Your task to perform on an android device: choose inbox layout in the gmail app Image 0: 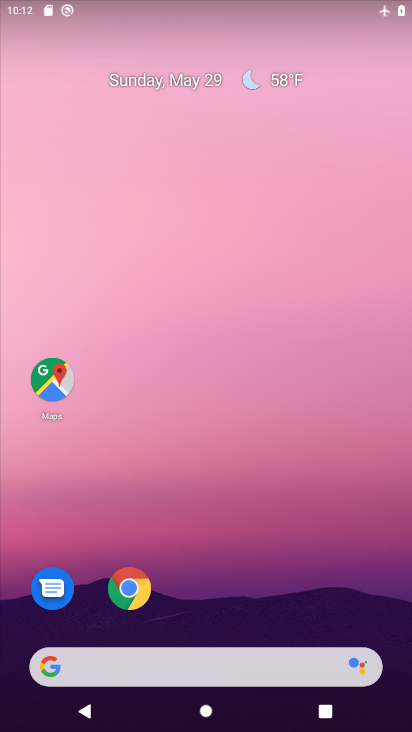
Step 0: drag from (273, 624) to (238, 137)
Your task to perform on an android device: choose inbox layout in the gmail app Image 1: 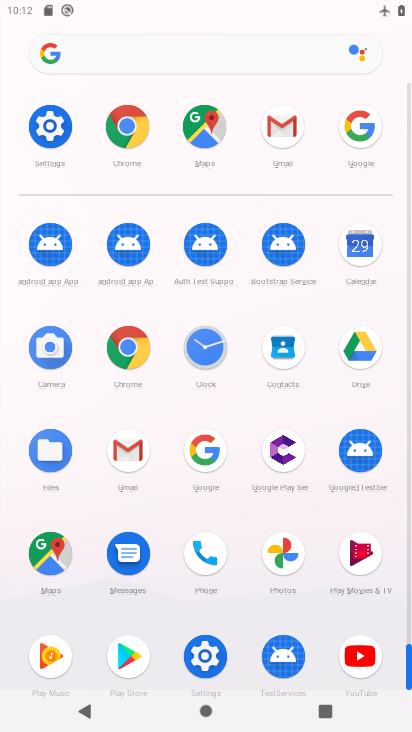
Step 1: click (125, 454)
Your task to perform on an android device: choose inbox layout in the gmail app Image 2: 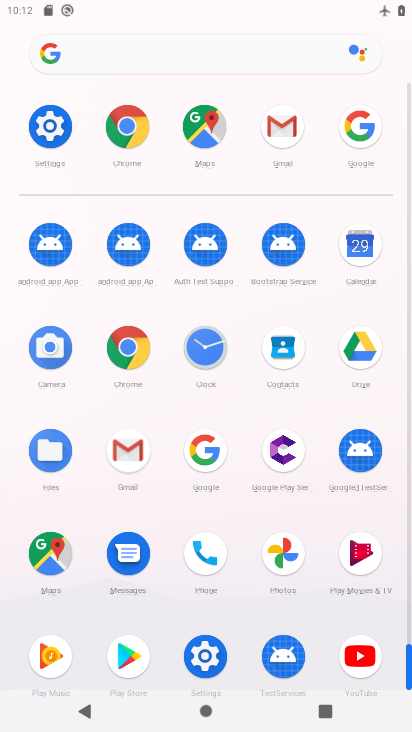
Step 2: click (131, 453)
Your task to perform on an android device: choose inbox layout in the gmail app Image 3: 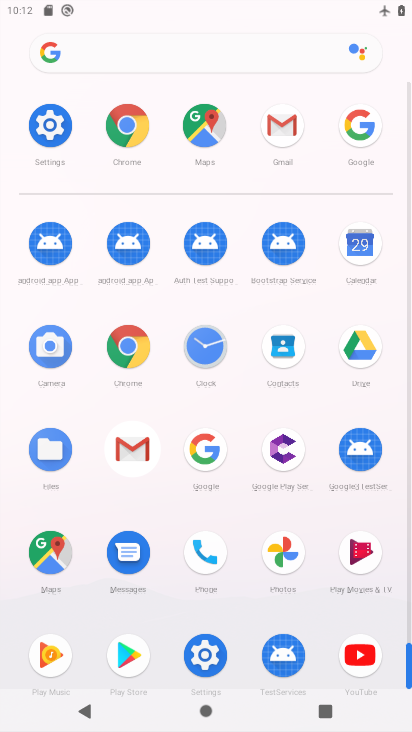
Step 3: click (131, 453)
Your task to perform on an android device: choose inbox layout in the gmail app Image 4: 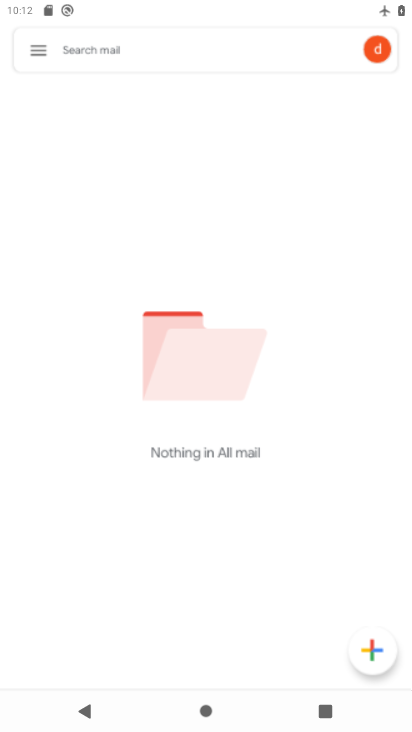
Step 4: click (132, 452)
Your task to perform on an android device: choose inbox layout in the gmail app Image 5: 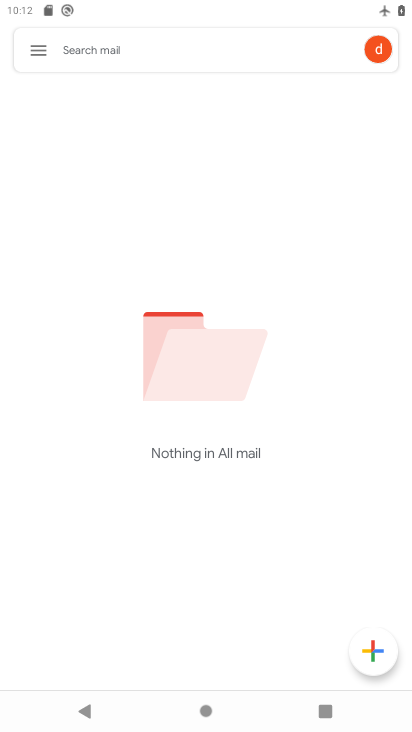
Step 5: click (40, 49)
Your task to perform on an android device: choose inbox layout in the gmail app Image 6: 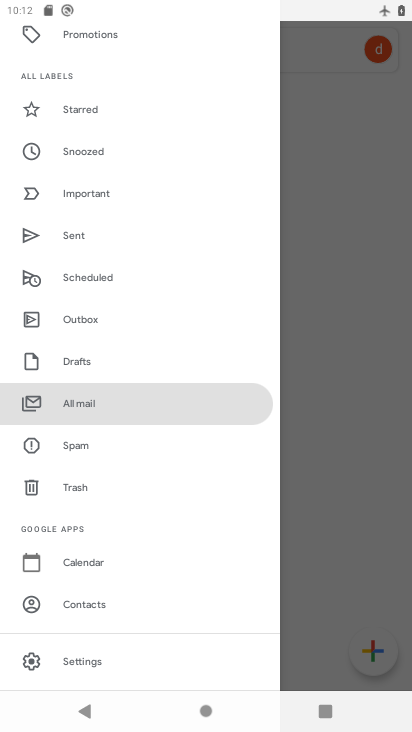
Step 6: click (85, 655)
Your task to perform on an android device: choose inbox layout in the gmail app Image 7: 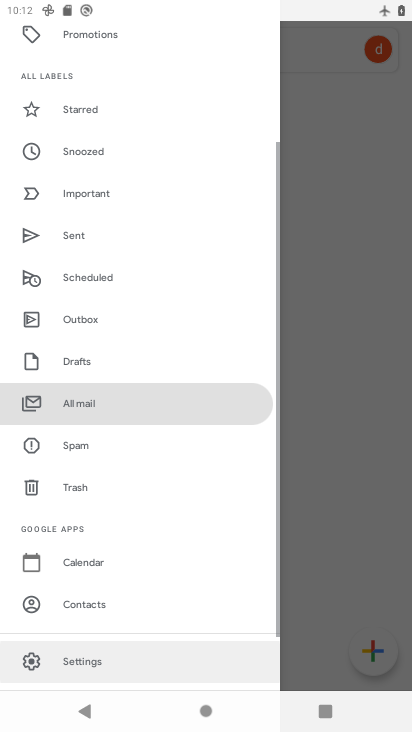
Step 7: click (85, 659)
Your task to perform on an android device: choose inbox layout in the gmail app Image 8: 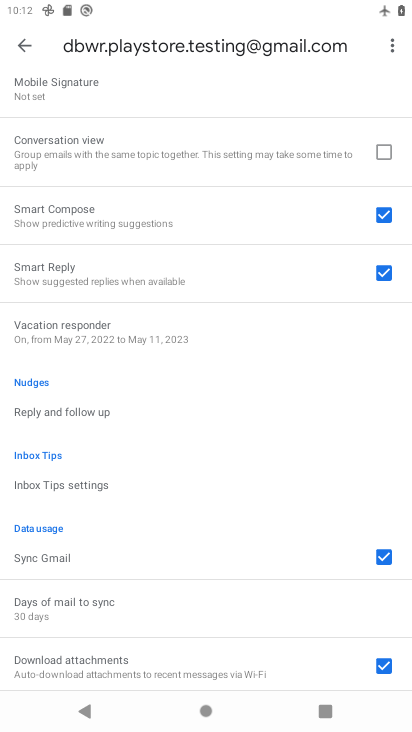
Step 8: drag from (74, 111) to (89, 583)
Your task to perform on an android device: choose inbox layout in the gmail app Image 9: 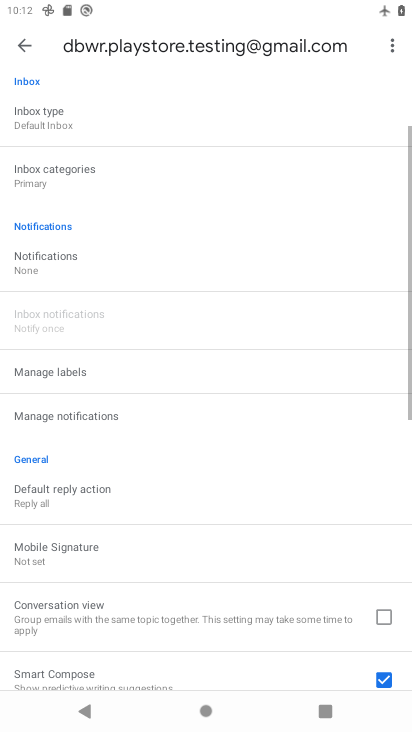
Step 9: drag from (87, 275) to (113, 628)
Your task to perform on an android device: choose inbox layout in the gmail app Image 10: 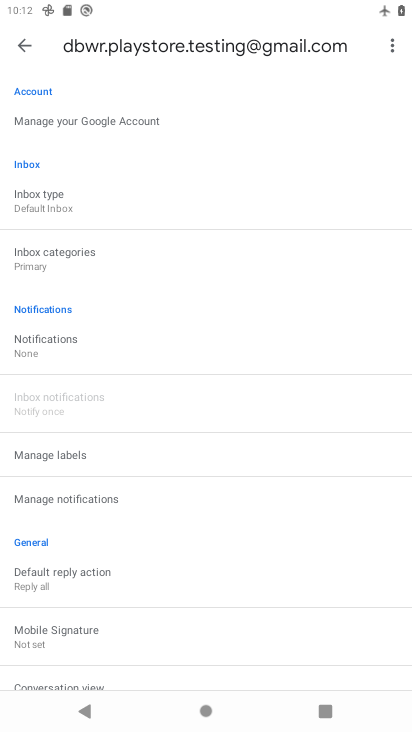
Step 10: click (32, 258)
Your task to perform on an android device: choose inbox layout in the gmail app Image 11: 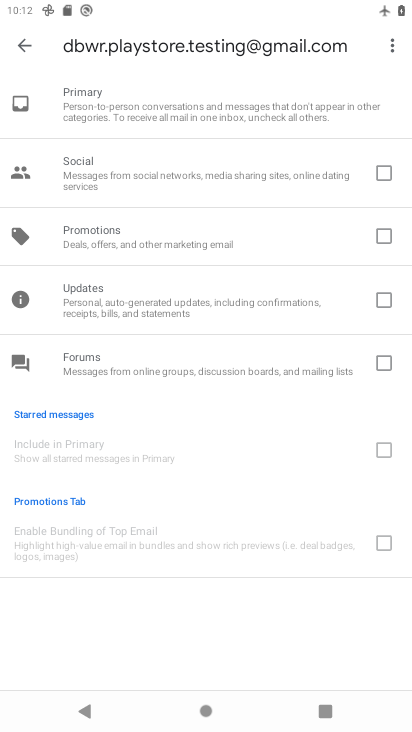
Step 11: drag from (149, 372) to (145, 121)
Your task to perform on an android device: choose inbox layout in the gmail app Image 12: 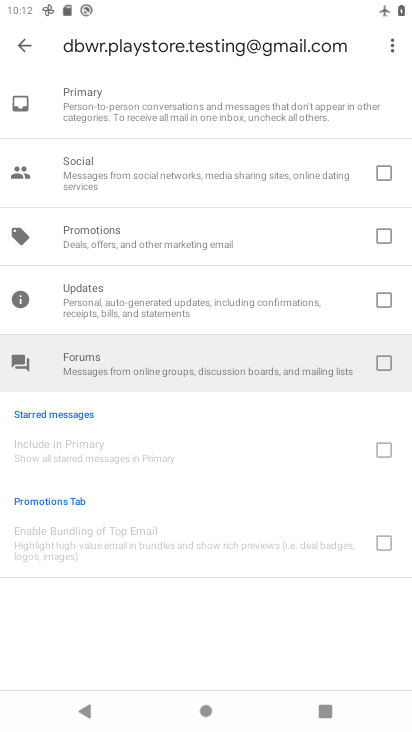
Step 12: drag from (162, 303) to (141, 0)
Your task to perform on an android device: choose inbox layout in the gmail app Image 13: 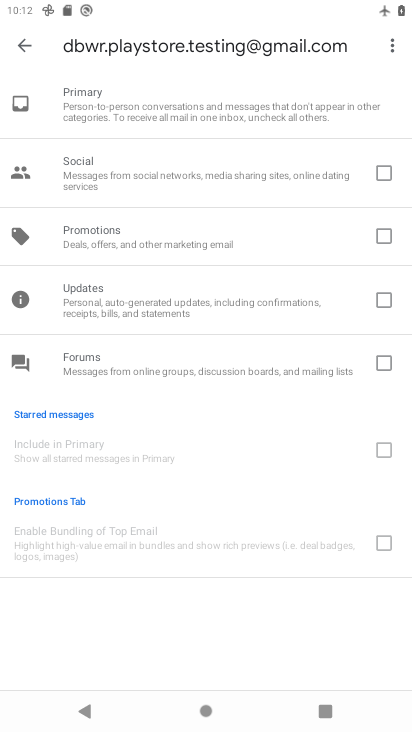
Step 13: drag from (97, 294) to (134, 550)
Your task to perform on an android device: choose inbox layout in the gmail app Image 14: 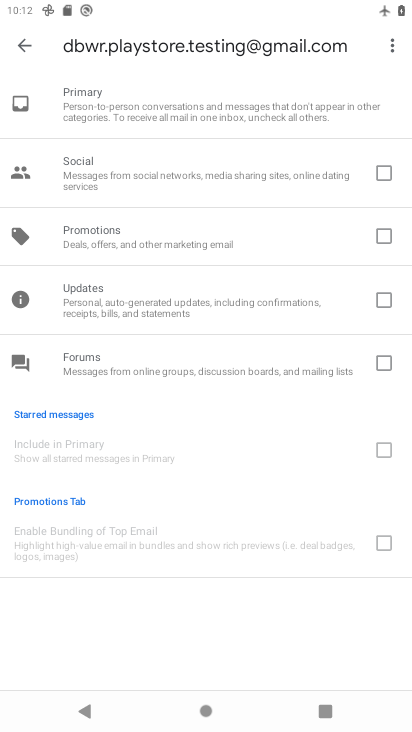
Step 14: drag from (92, 191) to (137, 499)
Your task to perform on an android device: choose inbox layout in the gmail app Image 15: 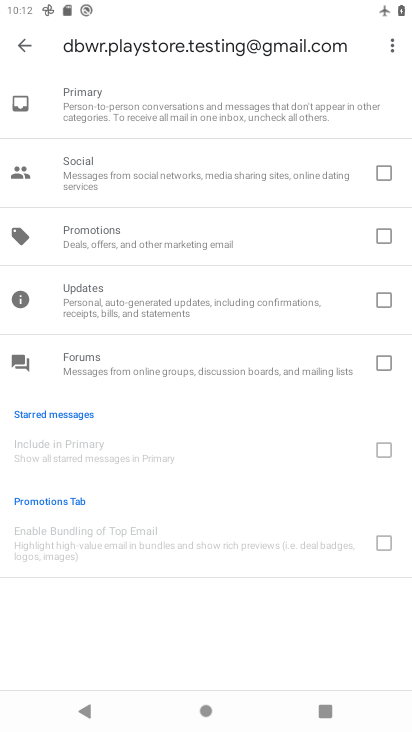
Step 15: click (37, 47)
Your task to perform on an android device: choose inbox layout in the gmail app Image 16: 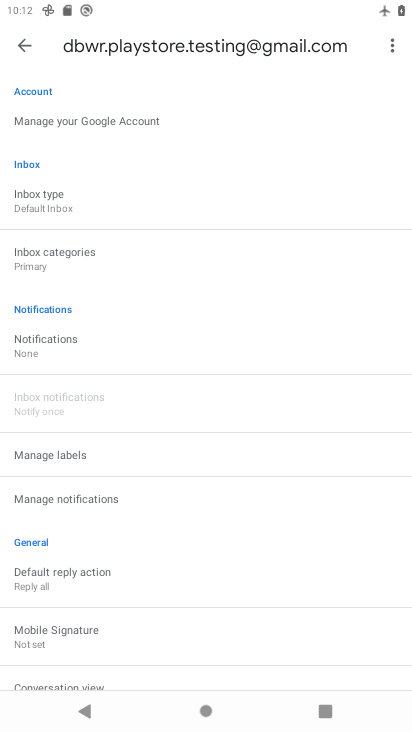
Step 16: drag from (85, 604) to (63, 390)
Your task to perform on an android device: choose inbox layout in the gmail app Image 17: 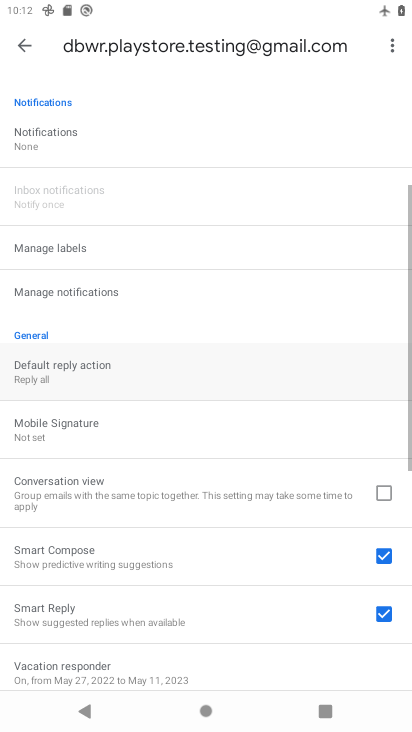
Step 17: drag from (66, 519) to (52, 221)
Your task to perform on an android device: choose inbox layout in the gmail app Image 18: 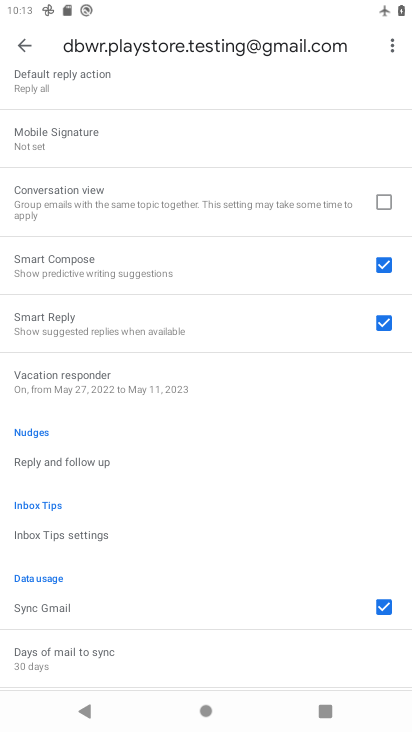
Step 18: drag from (91, 169) to (102, 457)
Your task to perform on an android device: choose inbox layout in the gmail app Image 19: 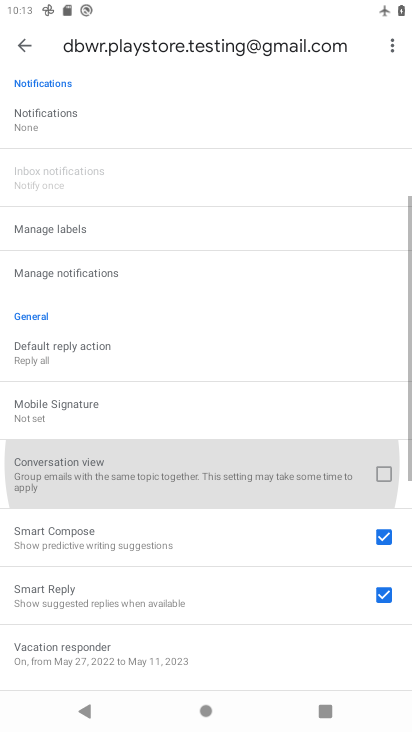
Step 19: drag from (102, 180) to (120, 467)
Your task to perform on an android device: choose inbox layout in the gmail app Image 20: 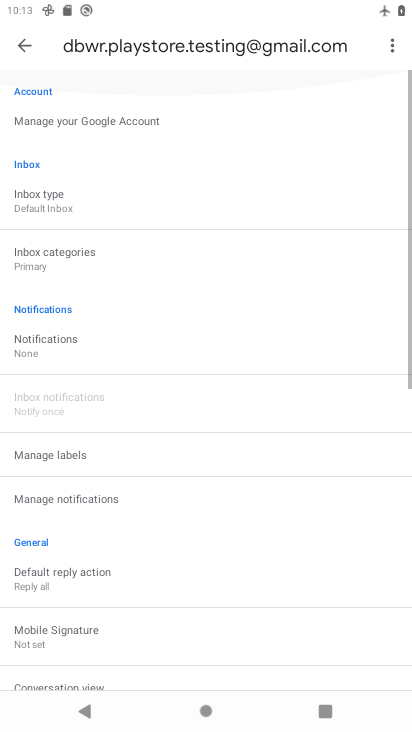
Step 20: drag from (120, 208) to (136, 551)
Your task to perform on an android device: choose inbox layout in the gmail app Image 21: 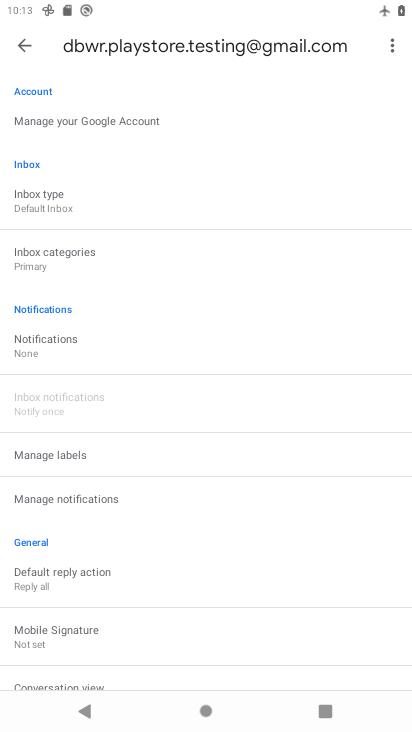
Step 21: click (46, 207)
Your task to perform on an android device: choose inbox layout in the gmail app Image 22: 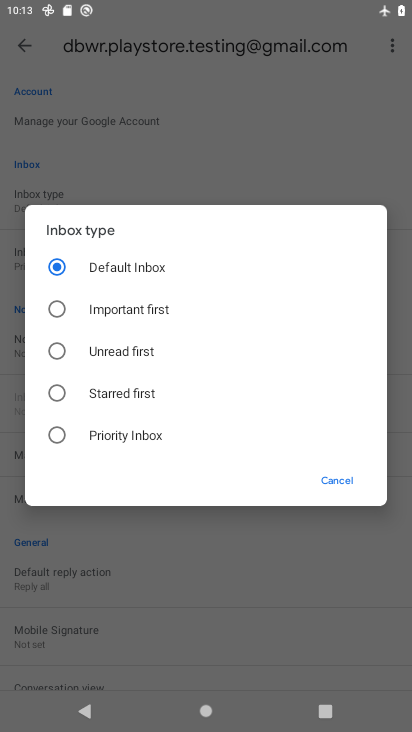
Step 22: click (332, 480)
Your task to perform on an android device: choose inbox layout in the gmail app Image 23: 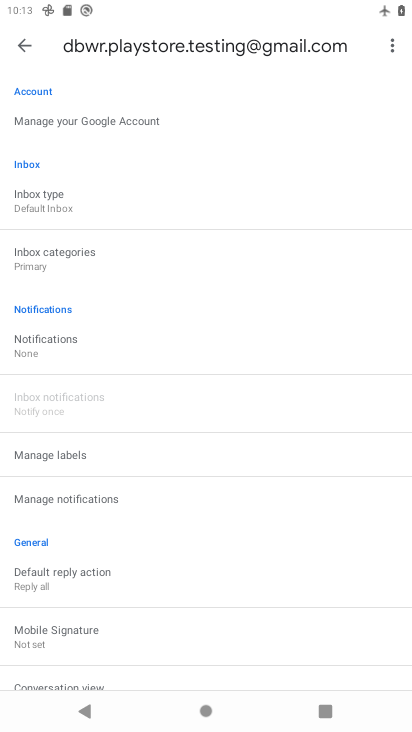
Step 23: task complete